Your task to perform on an android device: change notifications settings Image 0: 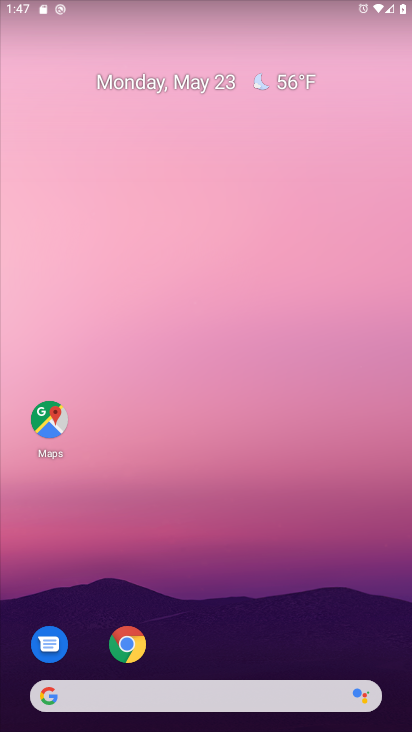
Step 0: drag from (243, 617) to (170, 202)
Your task to perform on an android device: change notifications settings Image 1: 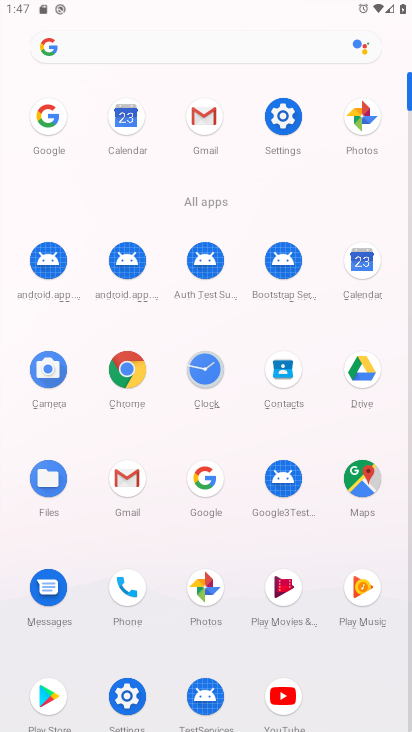
Step 1: click (277, 120)
Your task to perform on an android device: change notifications settings Image 2: 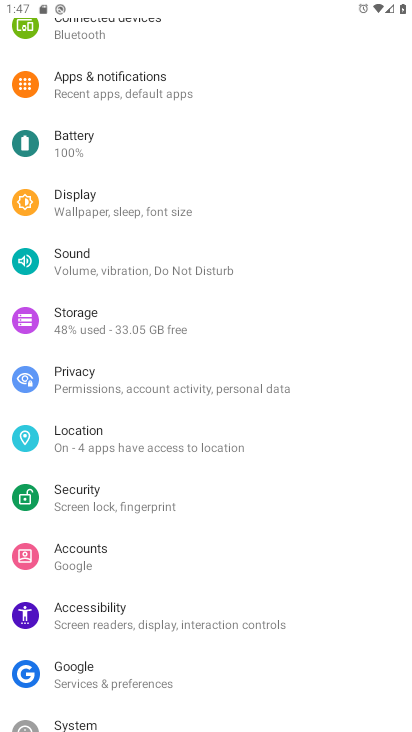
Step 2: click (131, 94)
Your task to perform on an android device: change notifications settings Image 3: 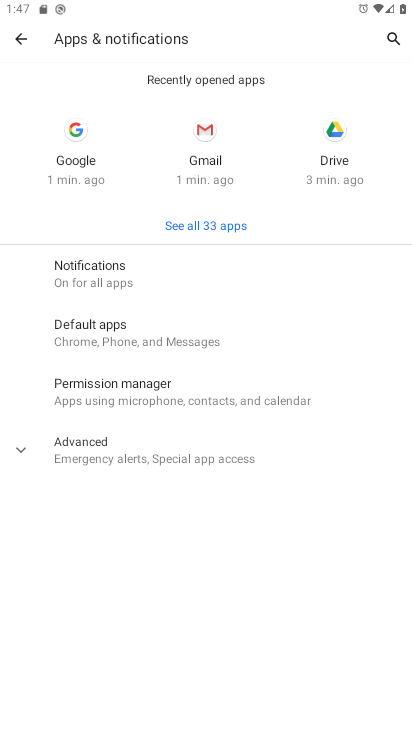
Step 3: click (114, 283)
Your task to perform on an android device: change notifications settings Image 4: 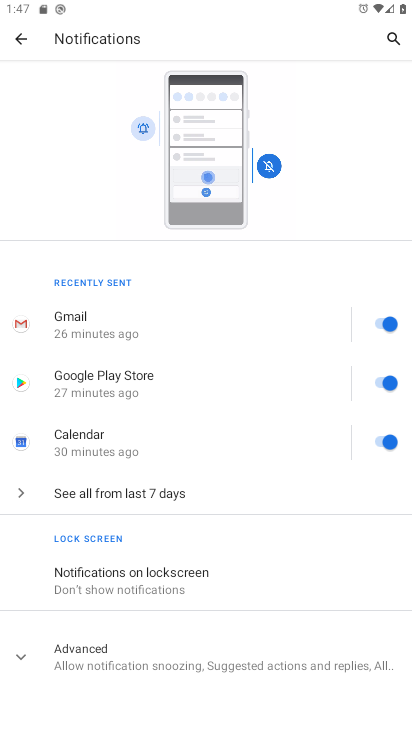
Step 4: drag from (210, 609) to (198, 331)
Your task to perform on an android device: change notifications settings Image 5: 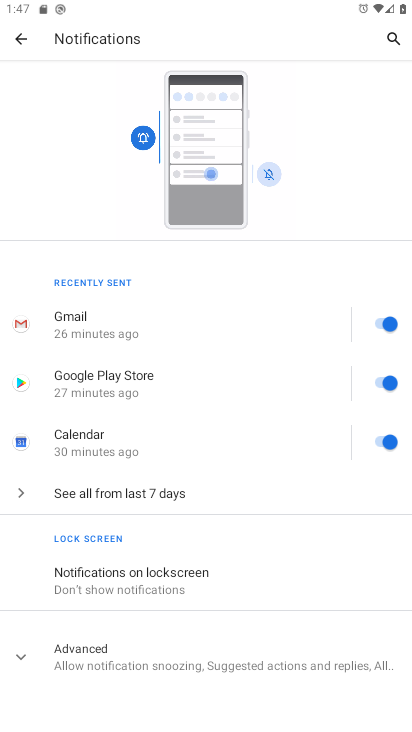
Step 5: click (176, 581)
Your task to perform on an android device: change notifications settings Image 6: 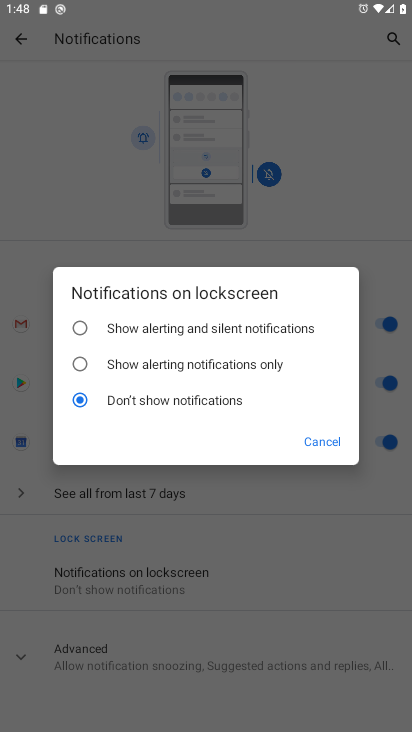
Step 6: click (82, 337)
Your task to perform on an android device: change notifications settings Image 7: 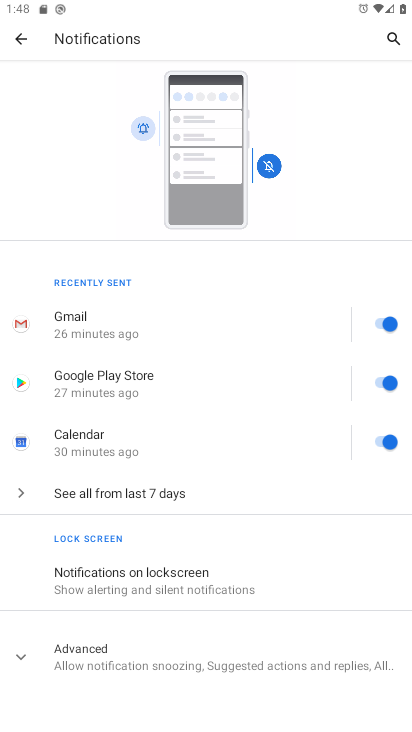
Step 7: task complete